Your task to perform on an android device: Open calendar and show me the fourth week of next month Image 0: 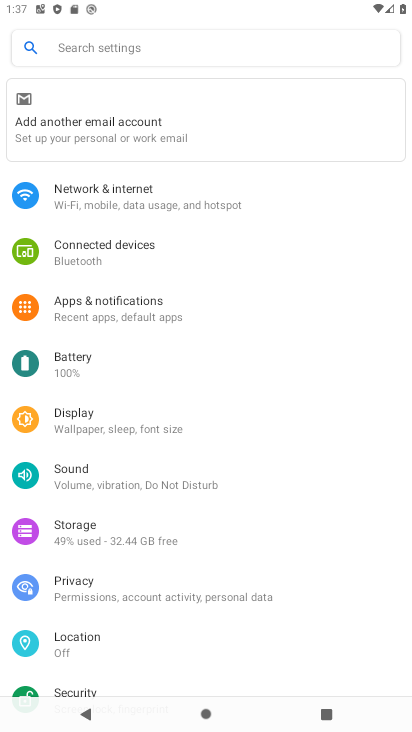
Step 0: press home button
Your task to perform on an android device: Open calendar and show me the fourth week of next month Image 1: 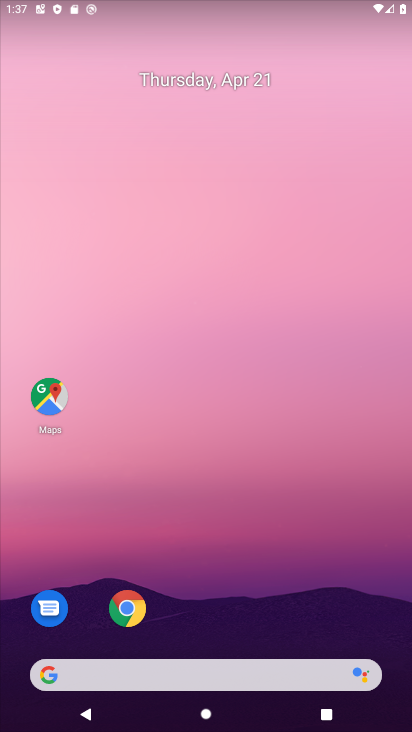
Step 1: click (300, 512)
Your task to perform on an android device: Open calendar and show me the fourth week of next month Image 2: 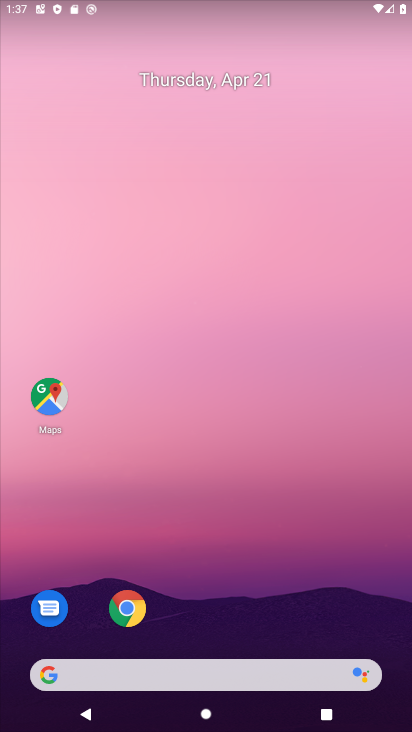
Step 2: drag from (294, 559) to (351, 208)
Your task to perform on an android device: Open calendar and show me the fourth week of next month Image 3: 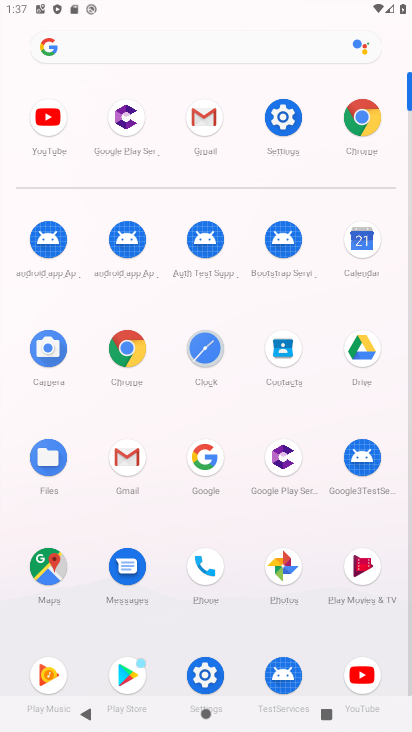
Step 3: click (363, 243)
Your task to perform on an android device: Open calendar and show me the fourth week of next month Image 4: 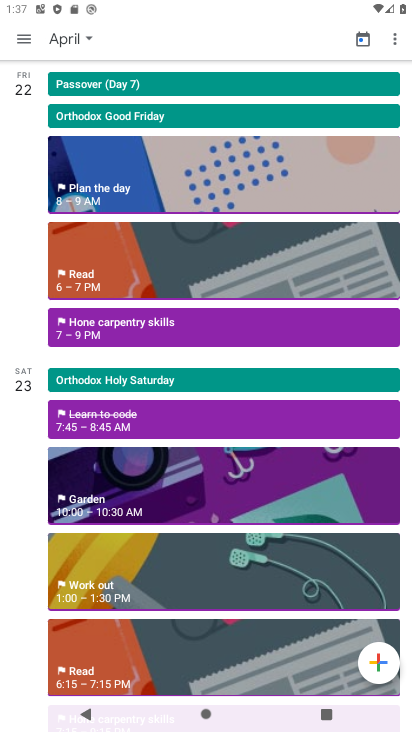
Step 4: click (48, 38)
Your task to perform on an android device: Open calendar and show me the fourth week of next month Image 5: 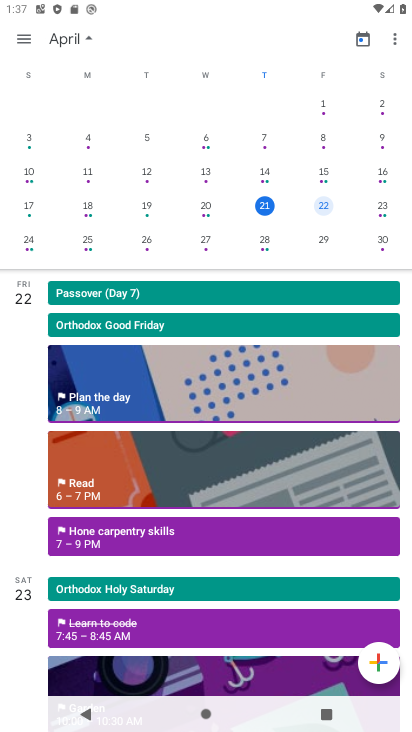
Step 5: drag from (304, 158) to (11, 183)
Your task to perform on an android device: Open calendar and show me the fourth week of next month Image 6: 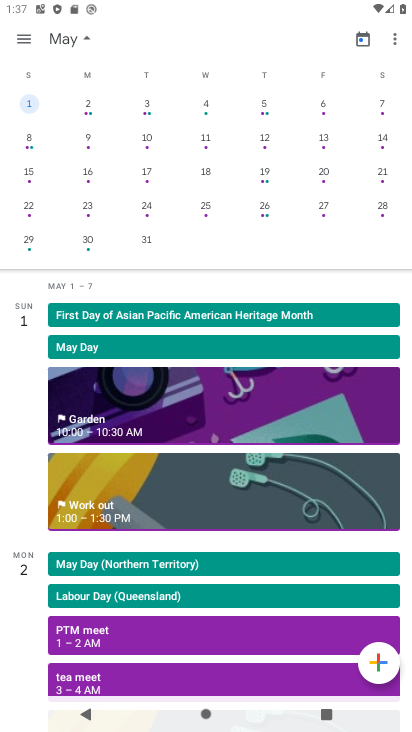
Step 6: click (388, 205)
Your task to perform on an android device: Open calendar and show me the fourth week of next month Image 7: 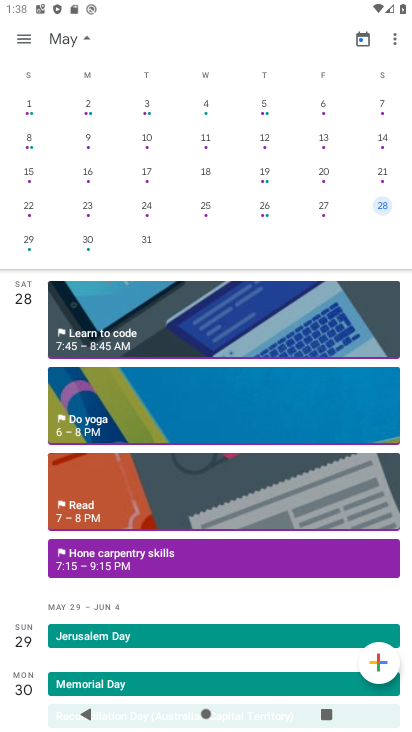
Step 7: task complete